Your task to perform on an android device: What's on my calendar tomorrow? Image 0: 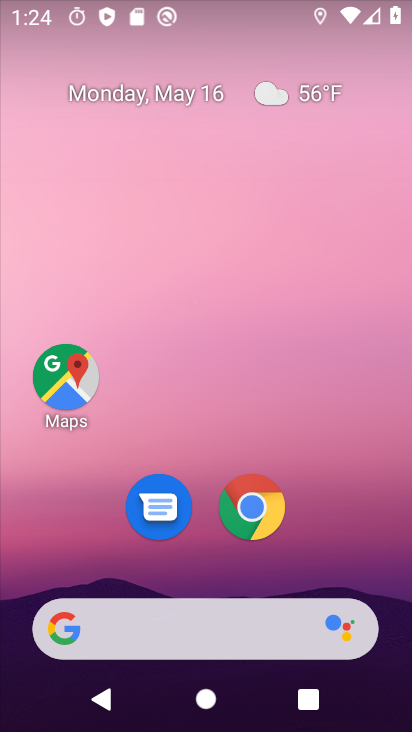
Step 0: drag from (207, 540) to (206, 100)
Your task to perform on an android device: What's on my calendar tomorrow? Image 1: 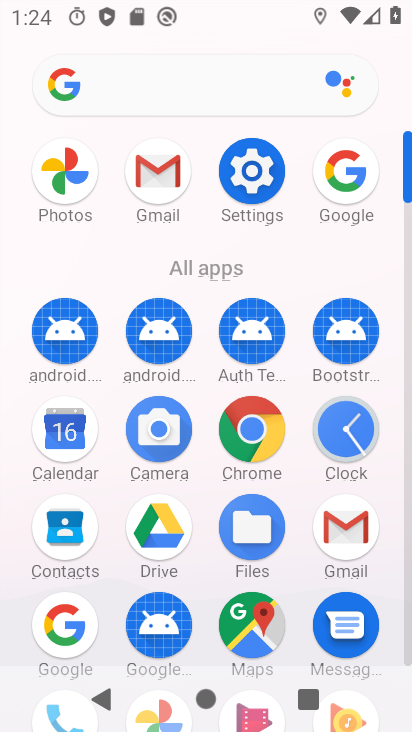
Step 1: click (59, 432)
Your task to perform on an android device: What's on my calendar tomorrow? Image 2: 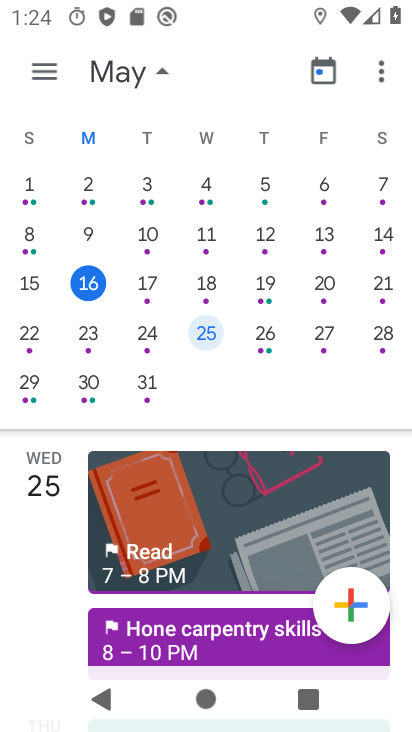
Step 2: click (90, 288)
Your task to perform on an android device: What's on my calendar tomorrow? Image 3: 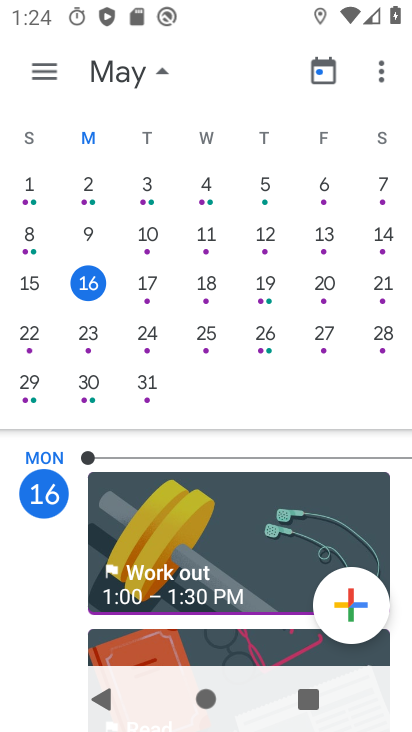
Step 3: click (153, 284)
Your task to perform on an android device: What's on my calendar tomorrow? Image 4: 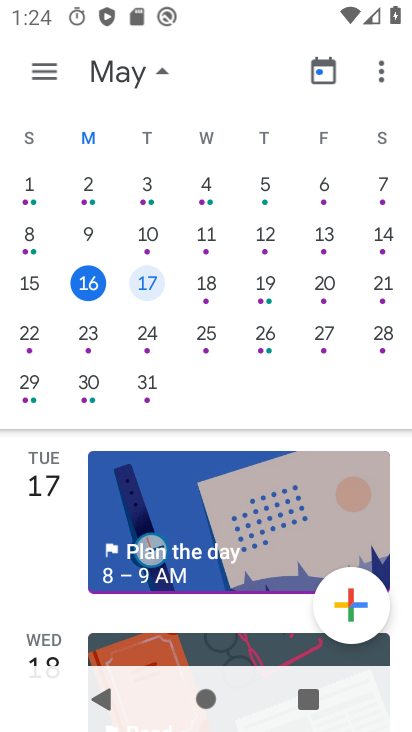
Step 4: task complete